Your task to perform on an android device: turn on javascript in the chrome app Image 0: 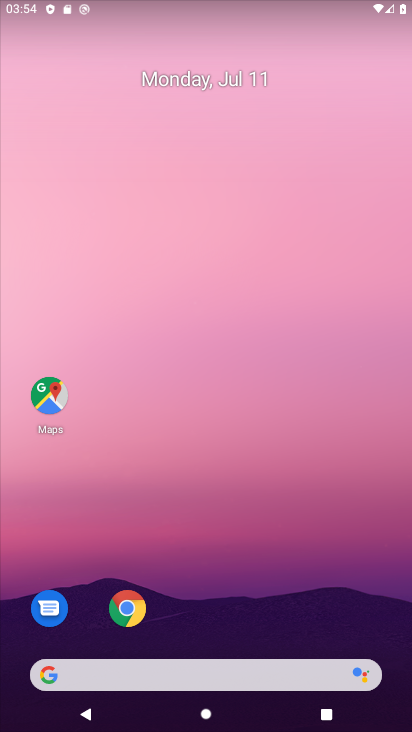
Step 0: click (124, 603)
Your task to perform on an android device: turn on javascript in the chrome app Image 1: 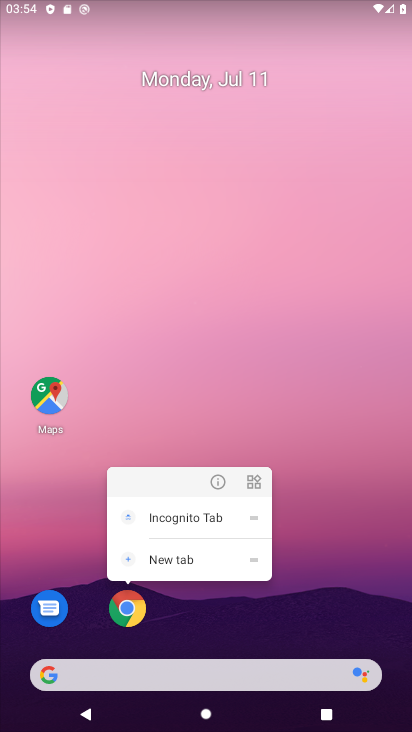
Step 1: click (127, 605)
Your task to perform on an android device: turn on javascript in the chrome app Image 2: 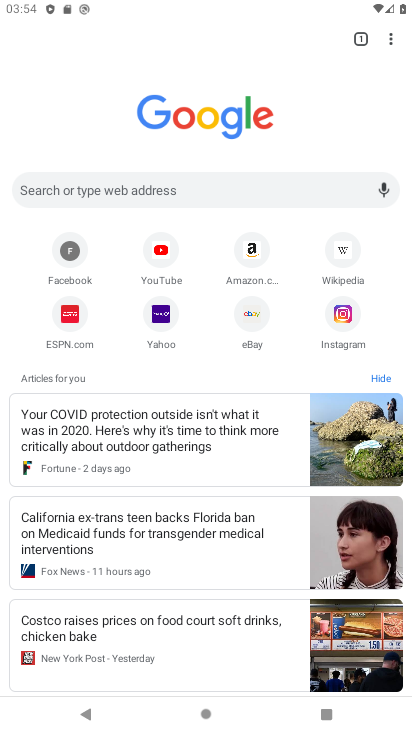
Step 2: click (396, 37)
Your task to perform on an android device: turn on javascript in the chrome app Image 3: 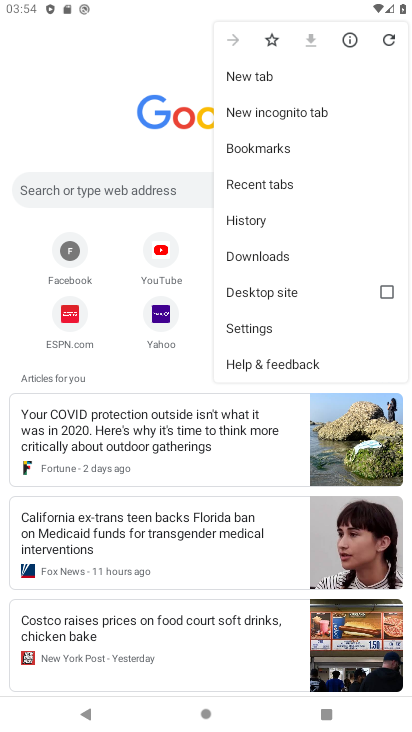
Step 3: click (264, 323)
Your task to perform on an android device: turn on javascript in the chrome app Image 4: 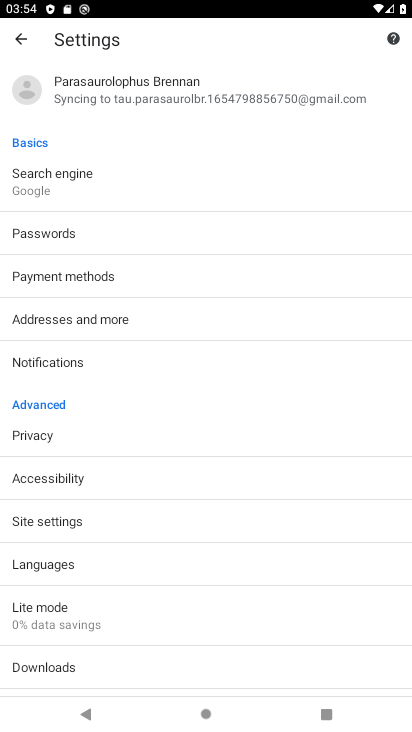
Step 4: drag from (254, 605) to (204, 17)
Your task to perform on an android device: turn on javascript in the chrome app Image 5: 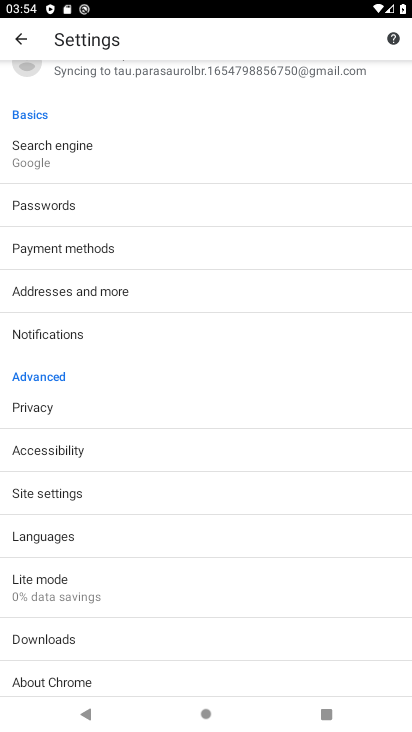
Step 5: click (90, 489)
Your task to perform on an android device: turn on javascript in the chrome app Image 6: 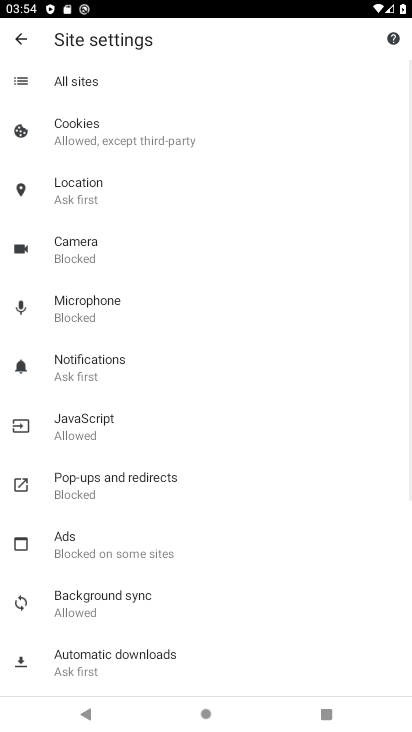
Step 6: click (146, 418)
Your task to perform on an android device: turn on javascript in the chrome app Image 7: 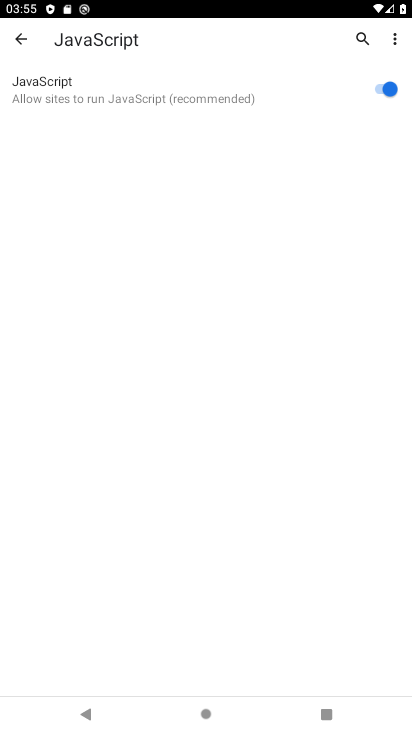
Step 7: task complete